Your task to perform on an android device: install app "VLC for Android" Image 0: 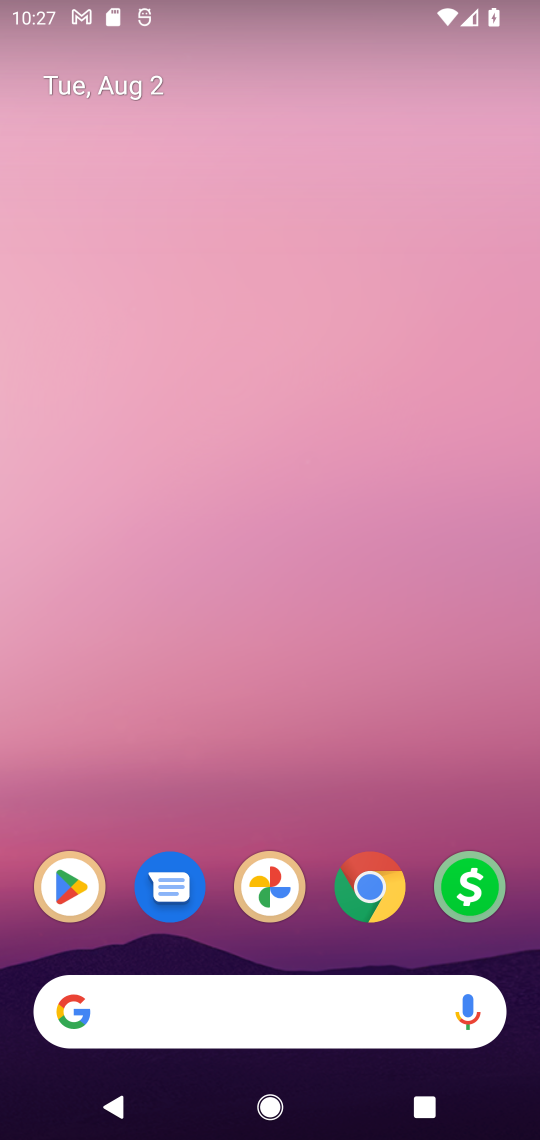
Step 0: drag from (303, 945) to (270, 72)
Your task to perform on an android device: install app "VLC for Android" Image 1: 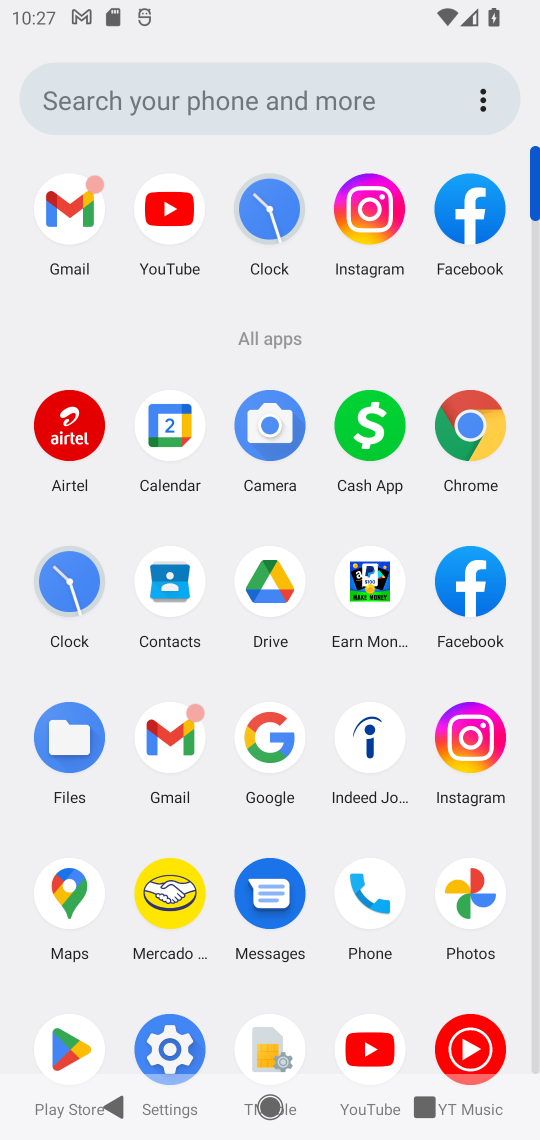
Step 1: click (49, 1056)
Your task to perform on an android device: install app "VLC for Android" Image 2: 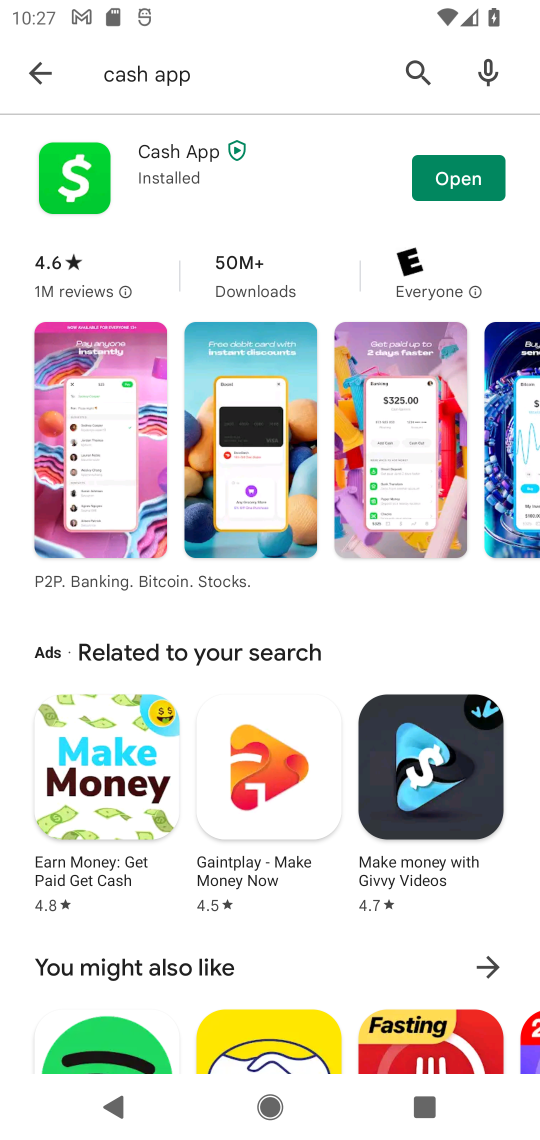
Step 2: click (28, 67)
Your task to perform on an android device: install app "VLC for Android" Image 3: 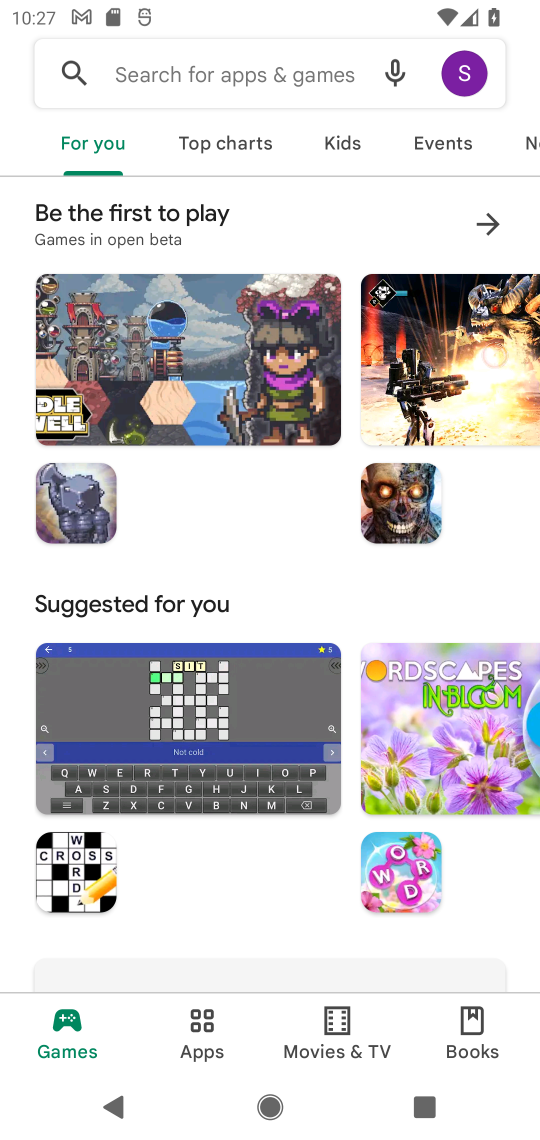
Step 3: click (129, 73)
Your task to perform on an android device: install app "VLC for Android" Image 4: 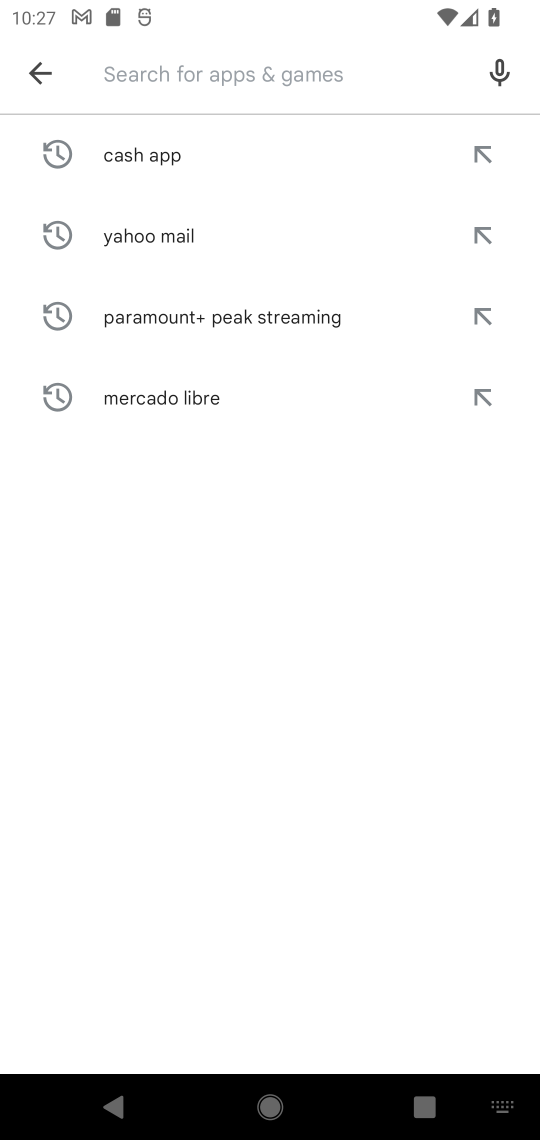
Step 4: type "VLC"
Your task to perform on an android device: install app "VLC for Android" Image 5: 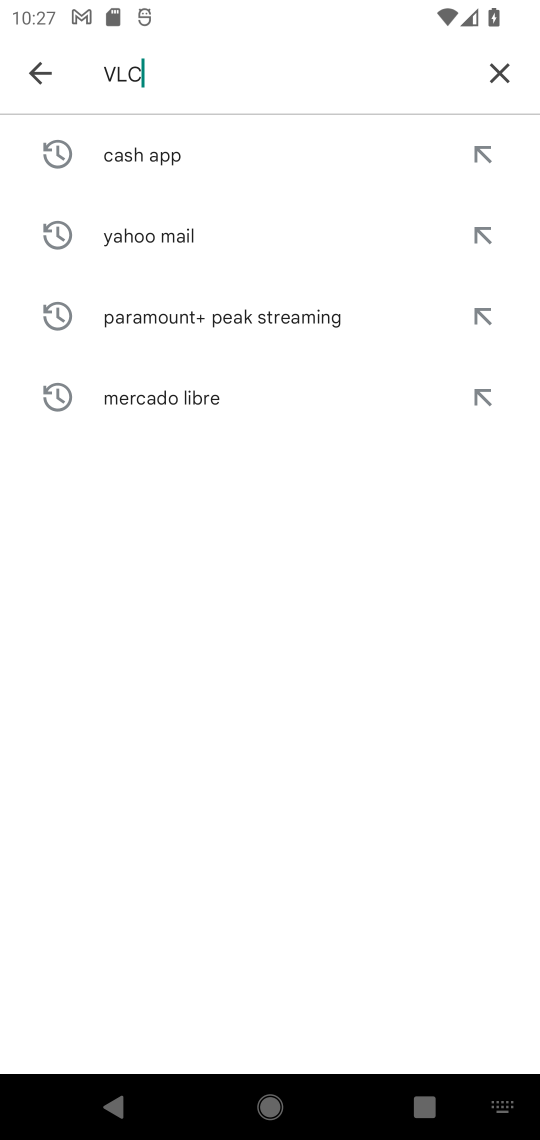
Step 5: type ""
Your task to perform on an android device: install app "VLC for Android" Image 6: 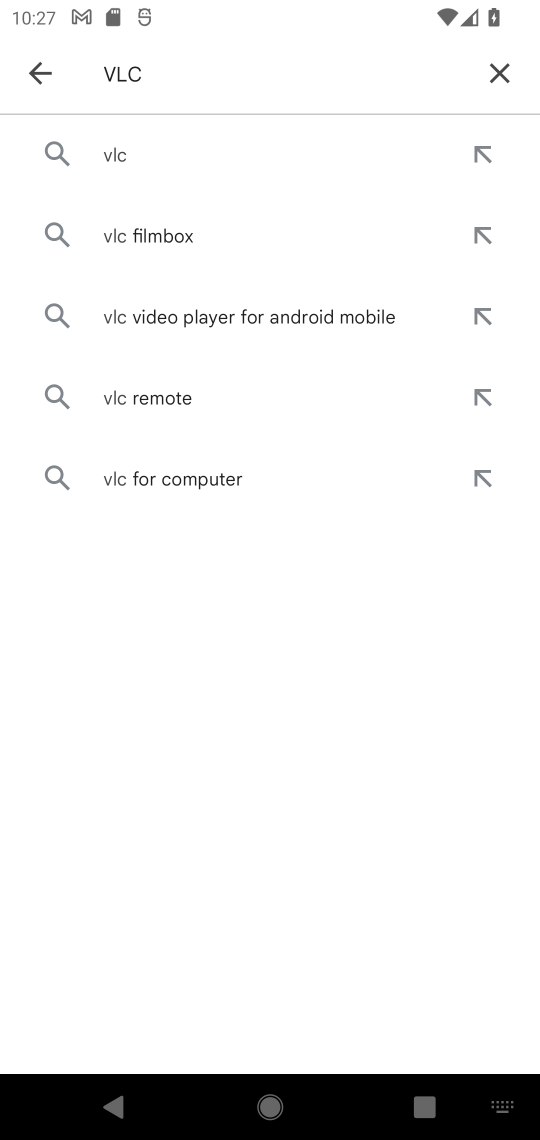
Step 6: click (103, 181)
Your task to perform on an android device: install app "VLC for Android" Image 7: 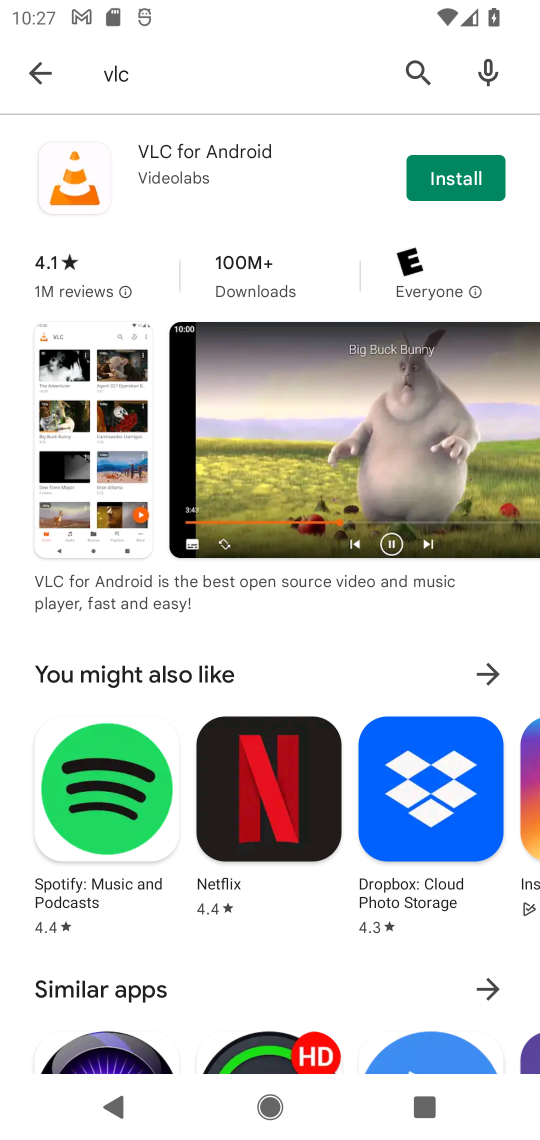
Step 7: click (417, 176)
Your task to perform on an android device: install app "VLC for Android" Image 8: 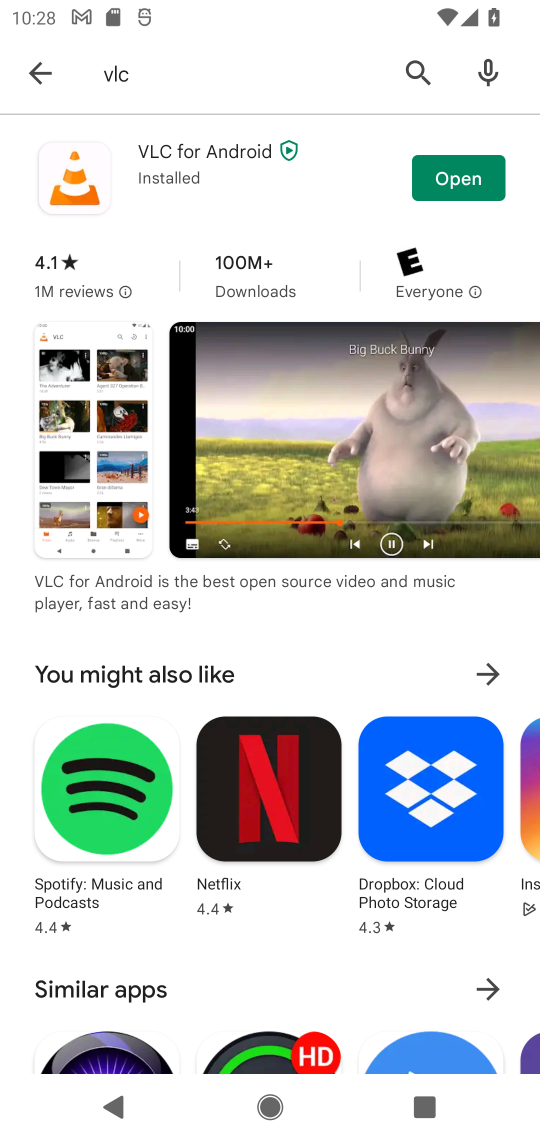
Step 8: task complete